Your task to perform on an android device: turn on notifications settings in the gmail app Image 0: 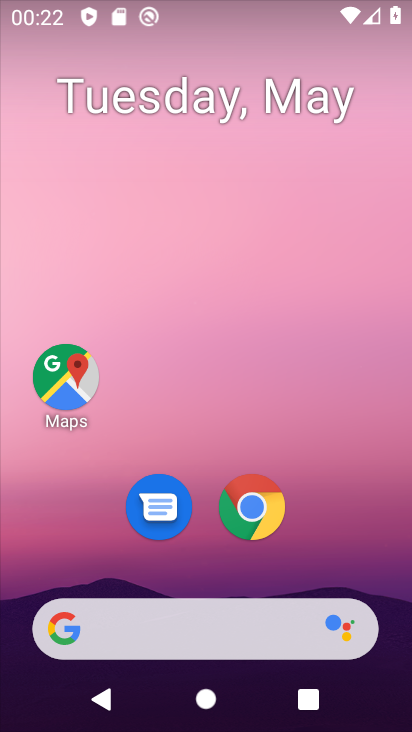
Step 0: drag from (202, 604) to (249, 285)
Your task to perform on an android device: turn on notifications settings in the gmail app Image 1: 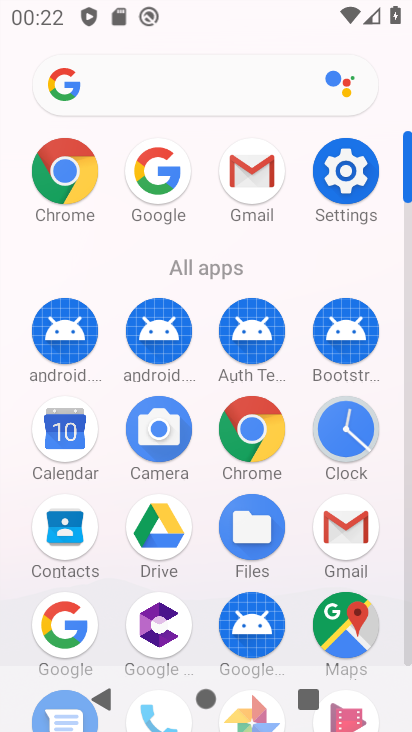
Step 1: click (339, 516)
Your task to perform on an android device: turn on notifications settings in the gmail app Image 2: 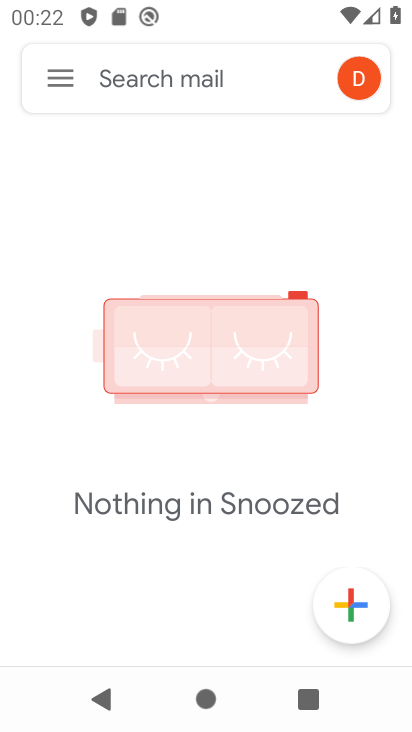
Step 2: click (52, 78)
Your task to perform on an android device: turn on notifications settings in the gmail app Image 3: 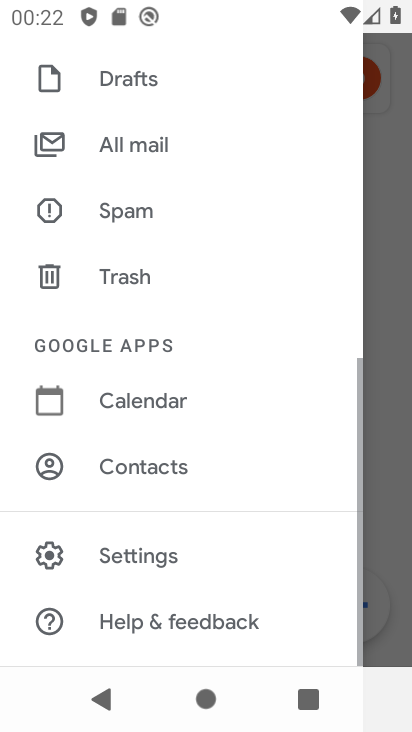
Step 3: click (137, 561)
Your task to perform on an android device: turn on notifications settings in the gmail app Image 4: 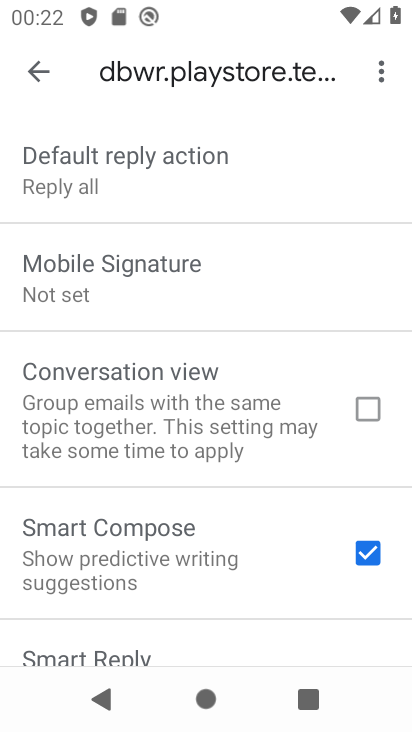
Step 4: click (38, 76)
Your task to perform on an android device: turn on notifications settings in the gmail app Image 5: 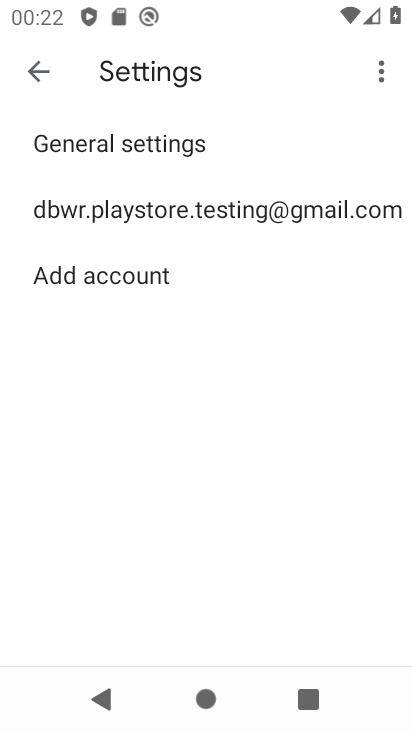
Step 5: click (121, 136)
Your task to perform on an android device: turn on notifications settings in the gmail app Image 6: 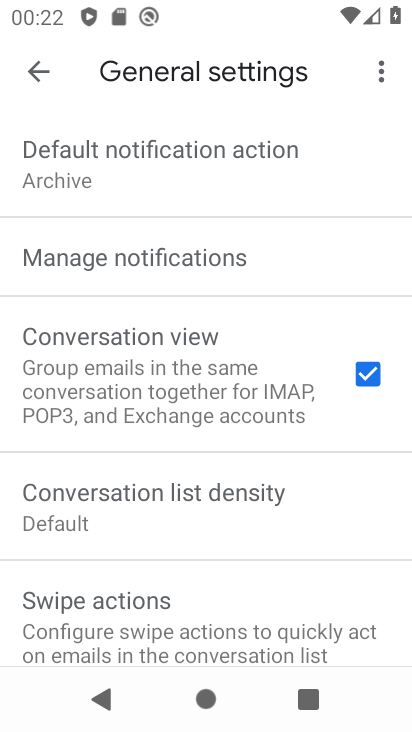
Step 6: click (140, 270)
Your task to perform on an android device: turn on notifications settings in the gmail app Image 7: 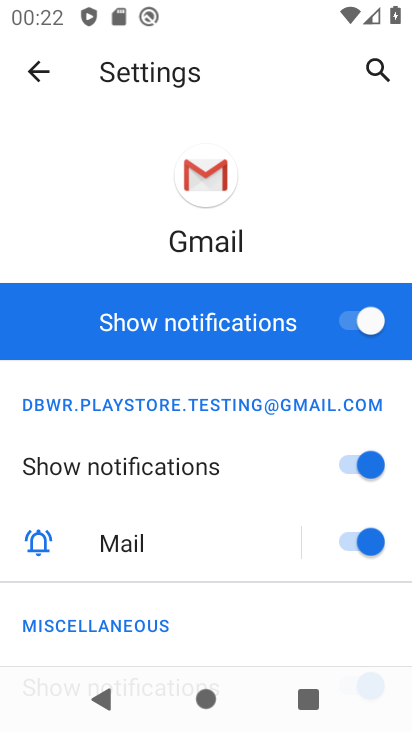
Step 7: task complete